Your task to perform on an android device: move an email to a new category in the gmail app Image 0: 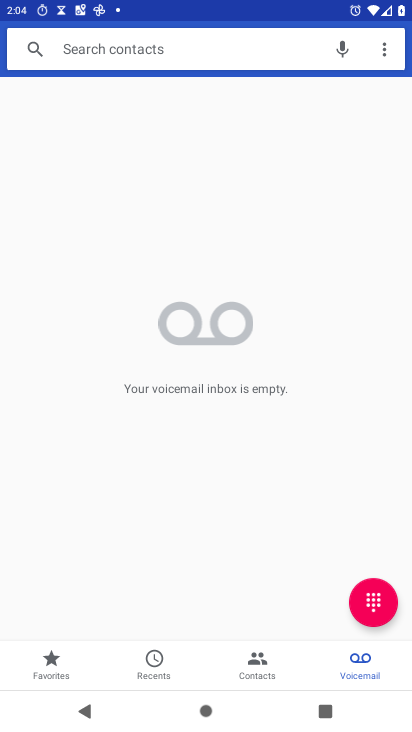
Step 0: press home button
Your task to perform on an android device: move an email to a new category in the gmail app Image 1: 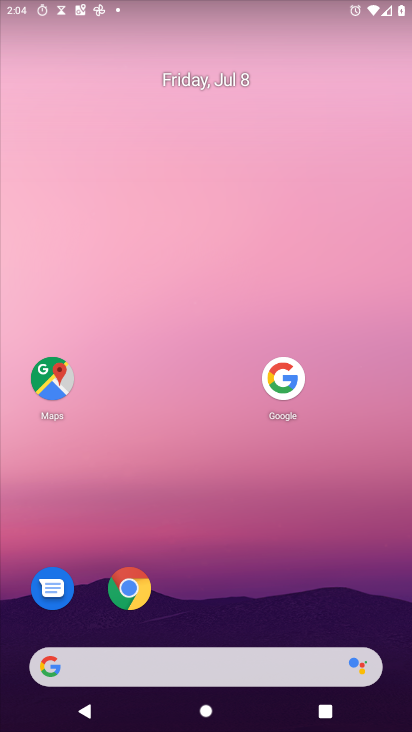
Step 1: drag from (193, 670) to (317, 157)
Your task to perform on an android device: move an email to a new category in the gmail app Image 2: 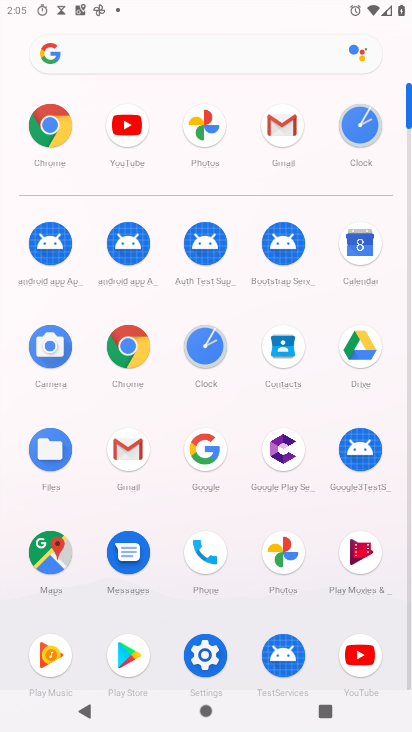
Step 2: click (284, 132)
Your task to perform on an android device: move an email to a new category in the gmail app Image 3: 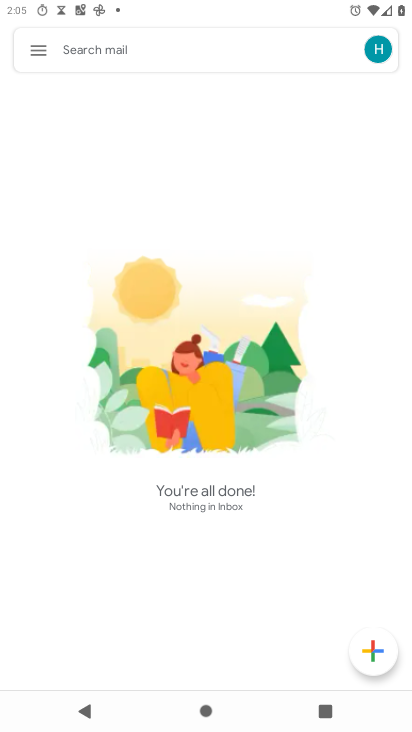
Step 3: task complete